Your task to perform on an android device: What is the news today? Image 0: 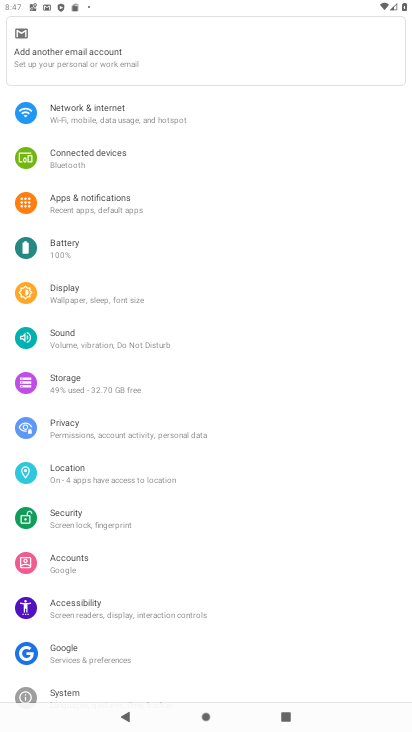
Step 0: press home button
Your task to perform on an android device: What is the news today? Image 1: 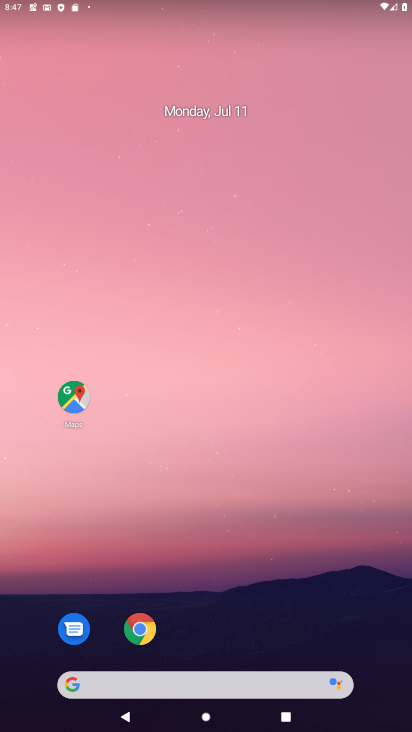
Step 1: click (163, 698)
Your task to perform on an android device: What is the news today? Image 2: 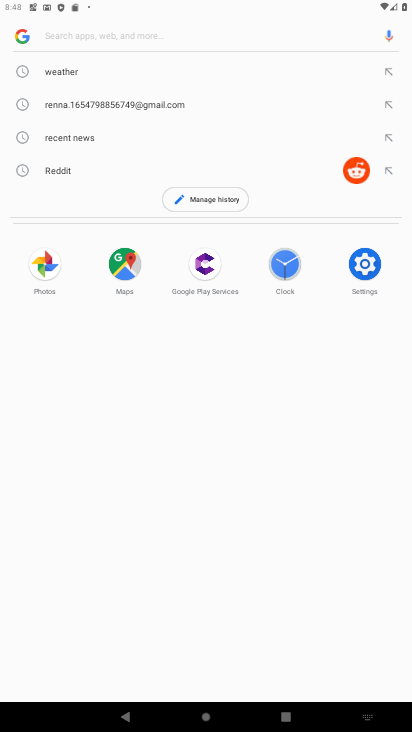
Step 2: type ""
Your task to perform on an android device: What is the news today? Image 3: 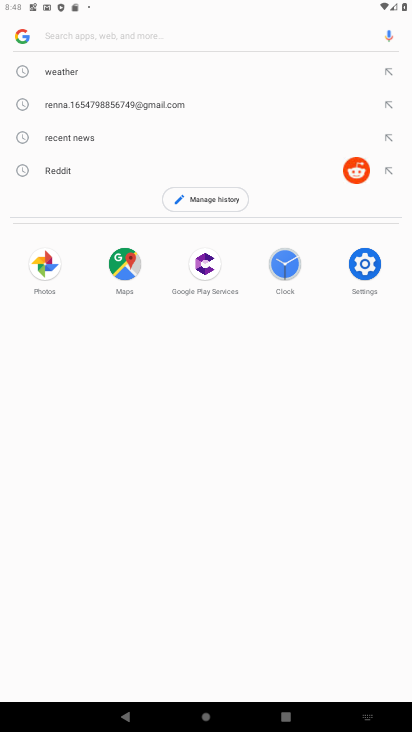
Step 3: type "weather today"
Your task to perform on an android device: What is the news today? Image 4: 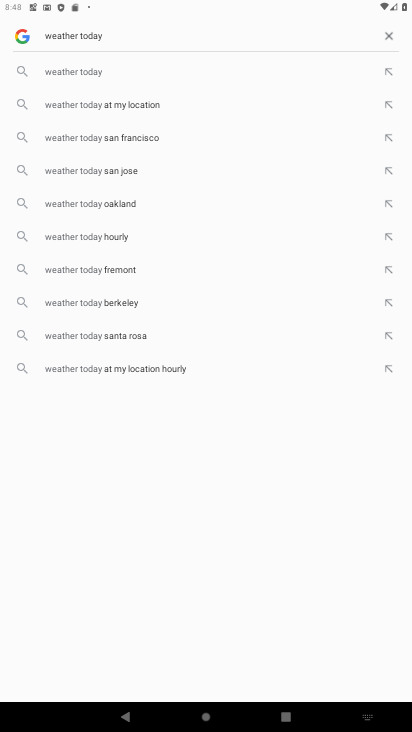
Step 4: click (80, 70)
Your task to perform on an android device: What is the news today? Image 5: 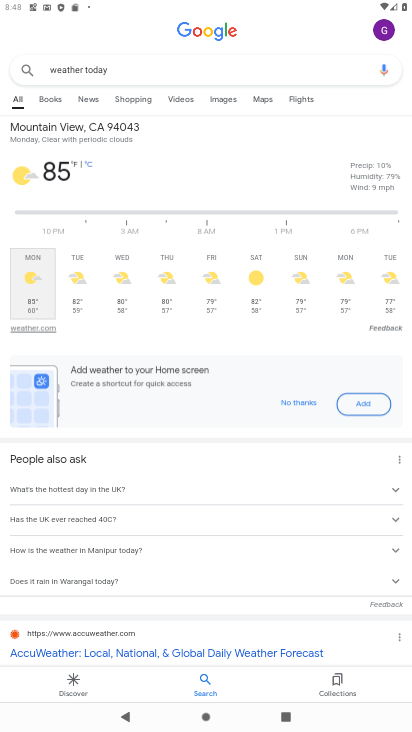
Step 5: task complete